Your task to perform on an android device: Open the web browser Image 0: 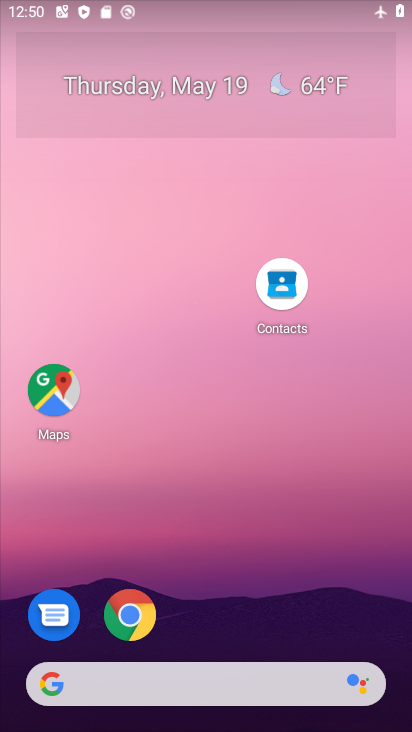
Step 0: drag from (284, 668) to (272, 190)
Your task to perform on an android device: Open the web browser Image 1: 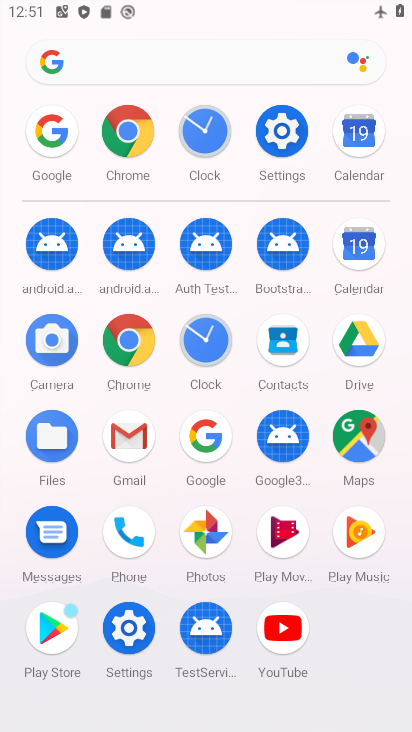
Step 1: click (139, 139)
Your task to perform on an android device: Open the web browser Image 2: 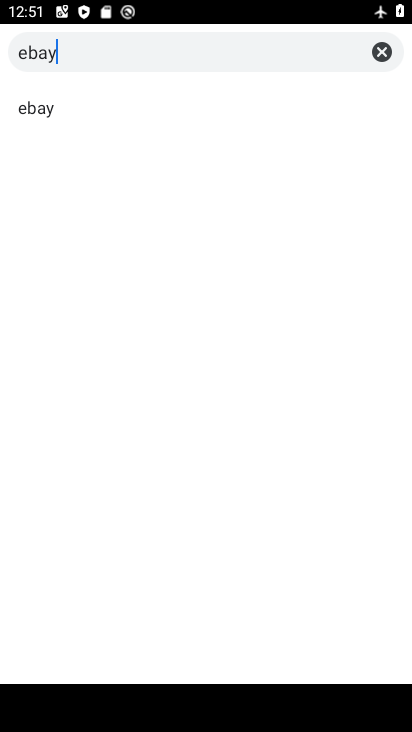
Step 2: click (383, 55)
Your task to perform on an android device: Open the web browser Image 3: 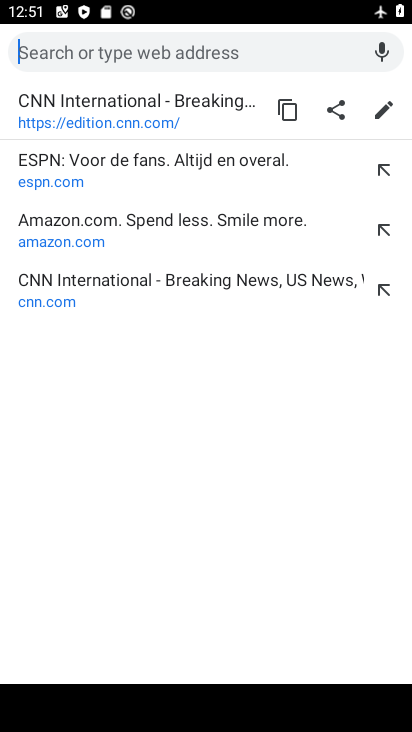
Step 3: task complete